Your task to perform on an android device: Open Amazon Image 0: 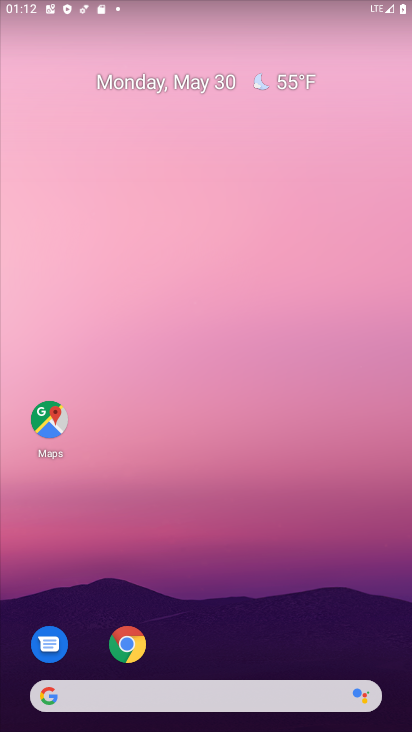
Step 0: drag from (348, 565) to (332, 121)
Your task to perform on an android device: Open Amazon Image 1: 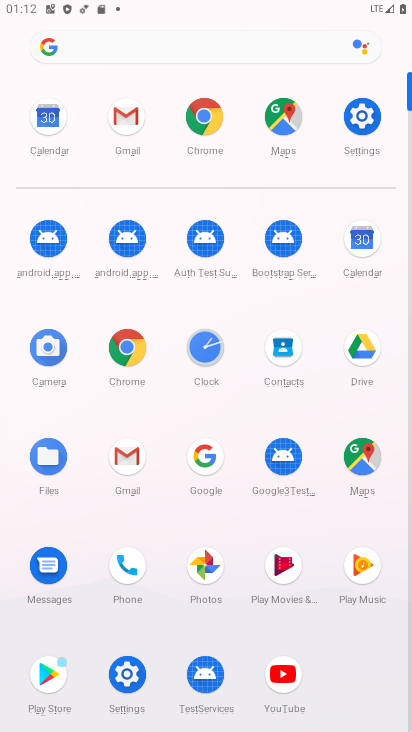
Step 1: click (199, 125)
Your task to perform on an android device: Open Amazon Image 2: 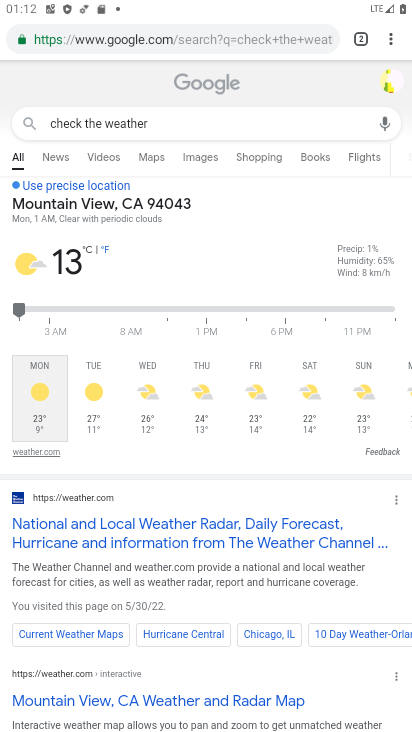
Step 2: click (345, 35)
Your task to perform on an android device: Open Amazon Image 3: 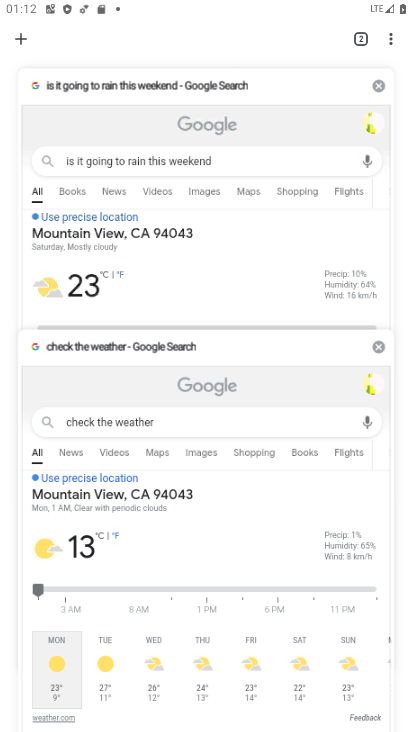
Step 3: click (22, 43)
Your task to perform on an android device: Open Amazon Image 4: 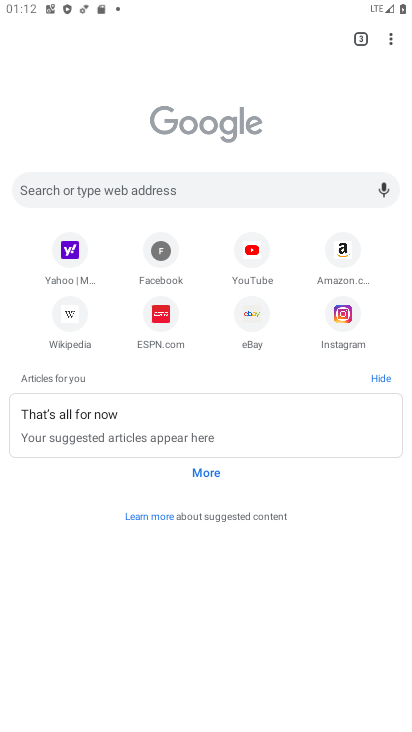
Step 4: click (333, 254)
Your task to perform on an android device: Open Amazon Image 5: 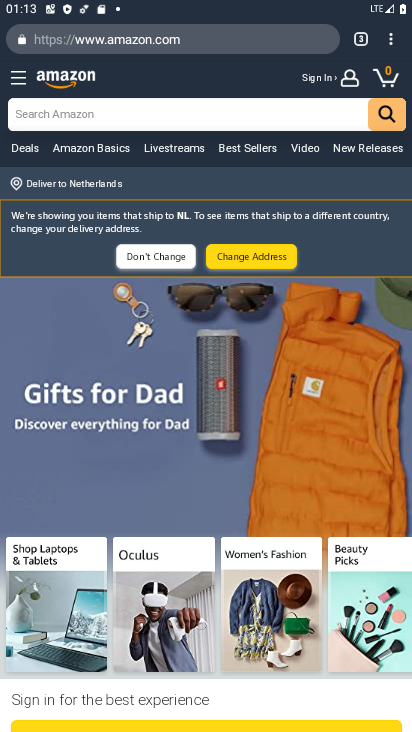
Step 5: task complete